Your task to perform on an android device: Search for the best selling jewelry on Etsy. Image 0: 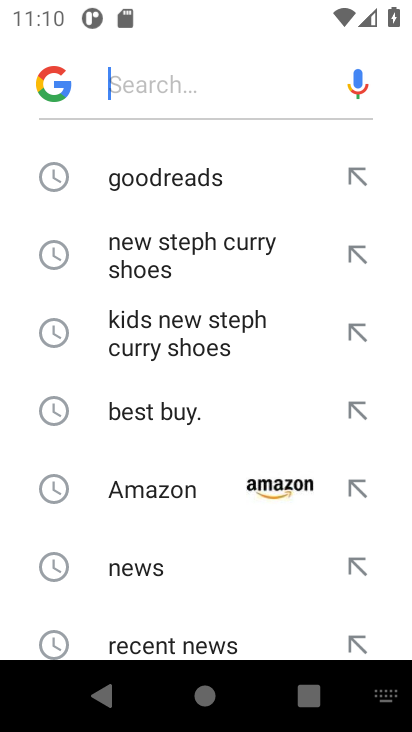
Step 0: click (185, 322)
Your task to perform on an android device: Search for the best selling jewelry on Etsy. Image 1: 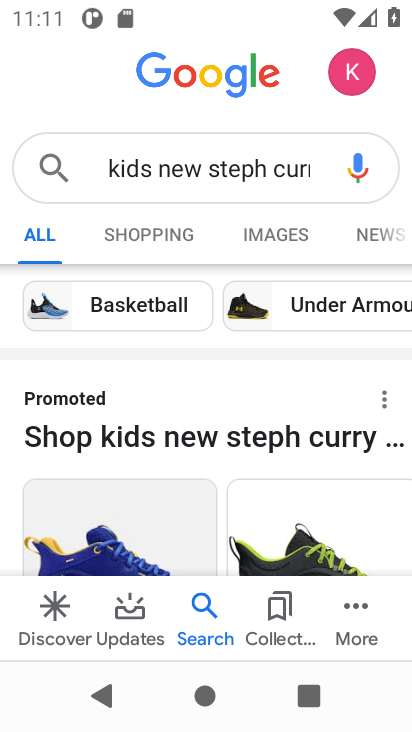
Step 1: task complete